Your task to perform on an android device: Toggle the flashlight Image 0: 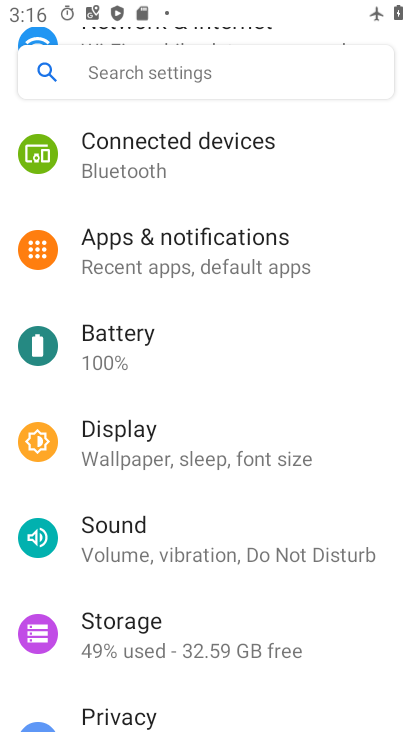
Step 0: drag from (247, 168) to (246, 604)
Your task to perform on an android device: Toggle the flashlight Image 1: 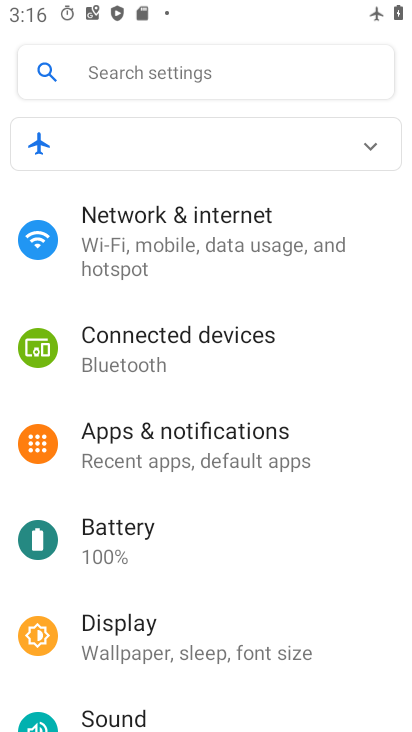
Step 1: click (206, 211)
Your task to perform on an android device: Toggle the flashlight Image 2: 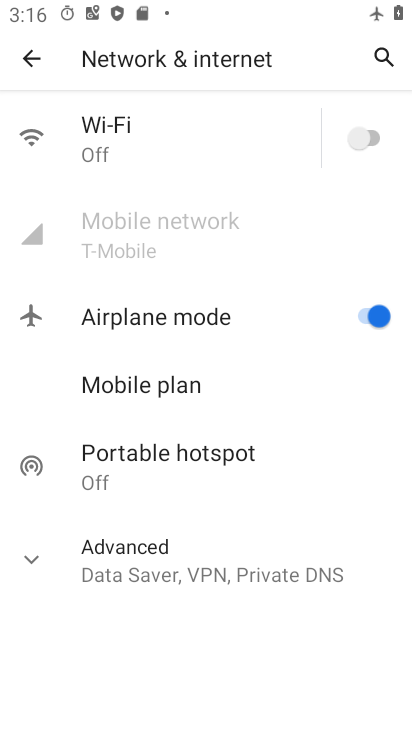
Step 2: click (11, 549)
Your task to perform on an android device: Toggle the flashlight Image 3: 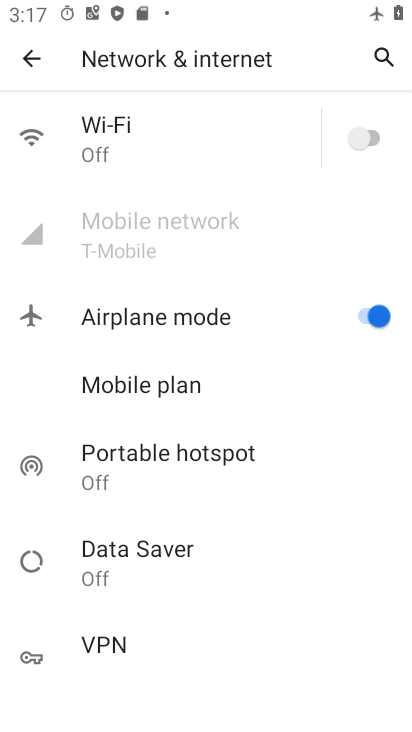
Step 3: task complete